Your task to perform on an android device: remove spam from my inbox in the gmail app Image 0: 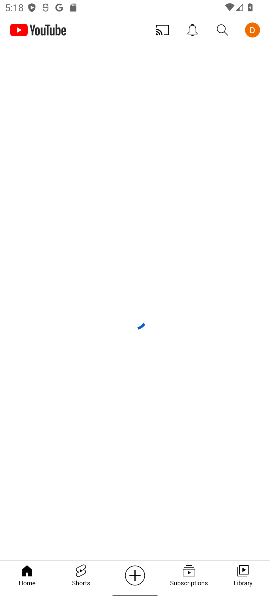
Step 0: press home button
Your task to perform on an android device: remove spam from my inbox in the gmail app Image 1: 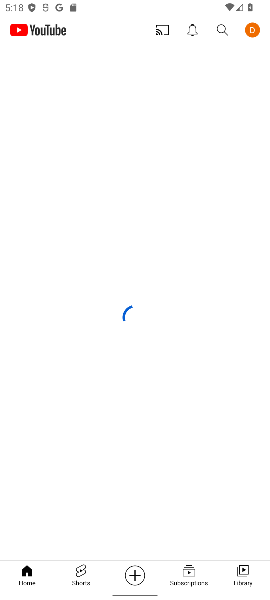
Step 1: press home button
Your task to perform on an android device: remove spam from my inbox in the gmail app Image 2: 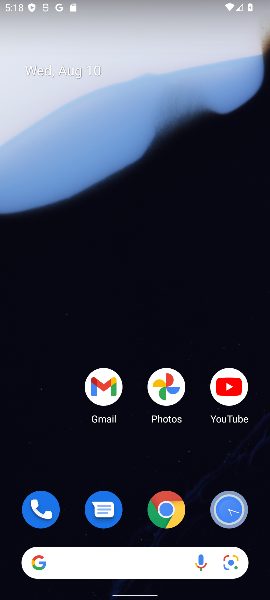
Step 2: drag from (198, 456) to (207, 24)
Your task to perform on an android device: remove spam from my inbox in the gmail app Image 3: 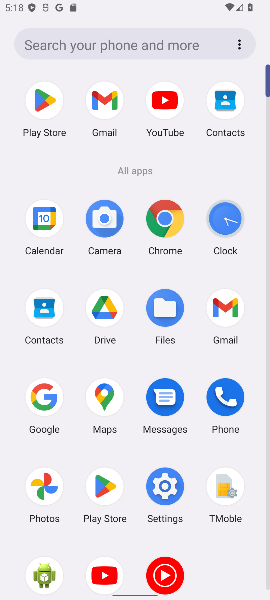
Step 3: click (223, 311)
Your task to perform on an android device: remove spam from my inbox in the gmail app Image 4: 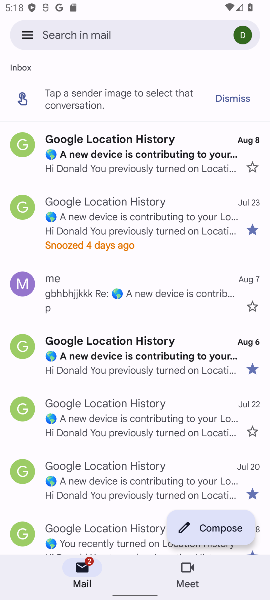
Step 4: click (29, 28)
Your task to perform on an android device: remove spam from my inbox in the gmail app Image 5: 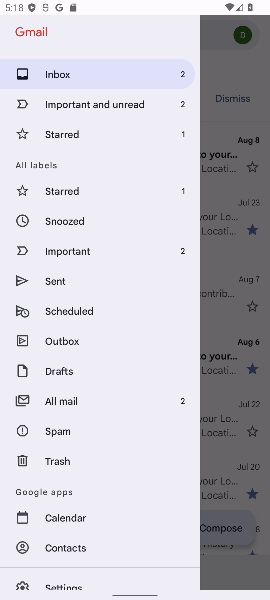
Step 5: click (72, 434)
Your task to perform on an android device: remove spam from my inbox in the gmail app Image 6: 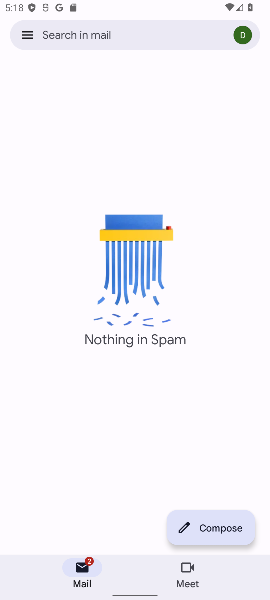
Step 6: task complete